Your task to perform on an android device: visit the assistant section in the google photos Image 0: 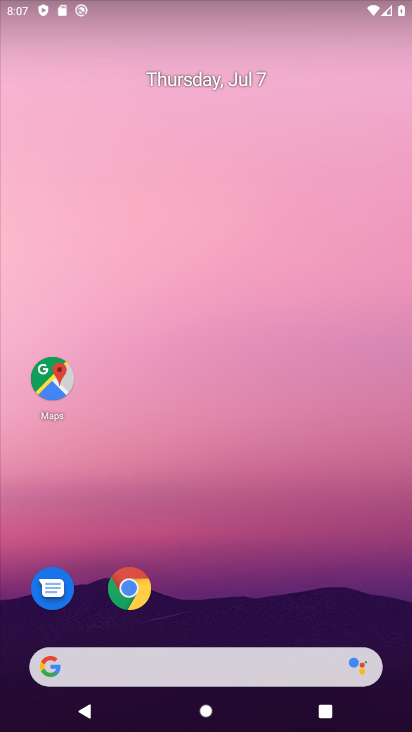
Step 0: drag from (244, 609) to (191, 119)
Your task to perform on an android device: visit the assistant section in the google photos Image 1: 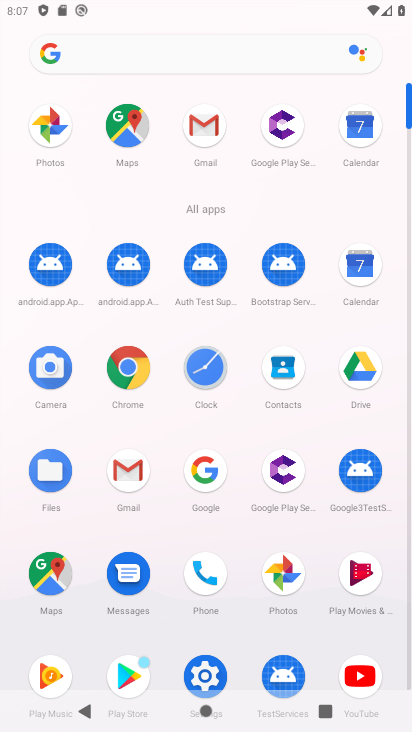
Step 1: click (49, 125)
Your task to perform on an android device: visit the assistant section in the google photos Image 2: 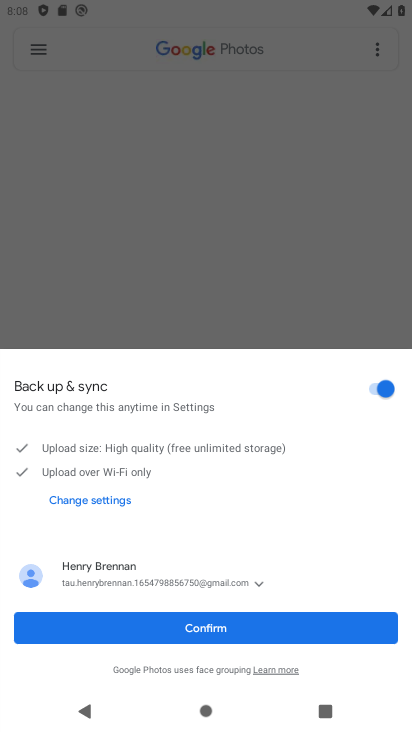
Step 2: click (194, 627)
Your task to perform on an android device: visit the assistant section in the google photos Image 3: 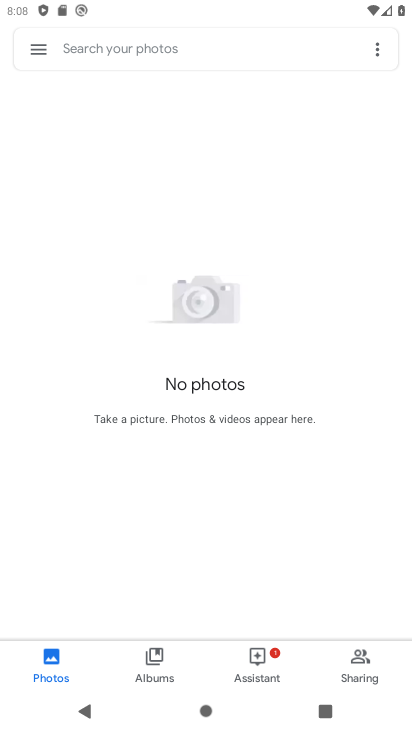
Step 3: click (254, 668)
Your task to perform on an android device: visit the assistant section in the google photos Image 4: 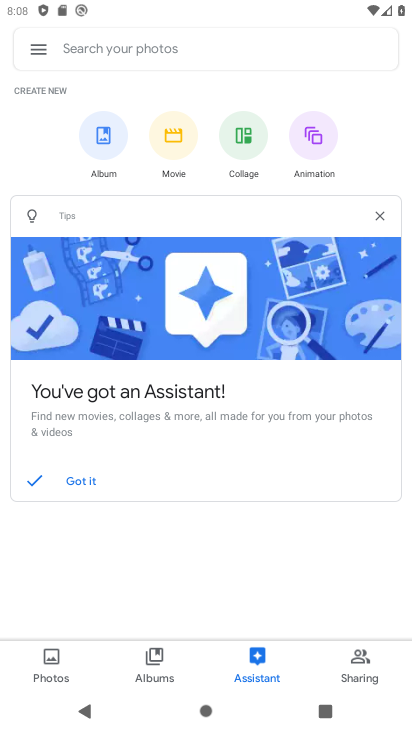
Step 4: task complete